Your task to perform on an android device: Go to privacy settings Image 0: 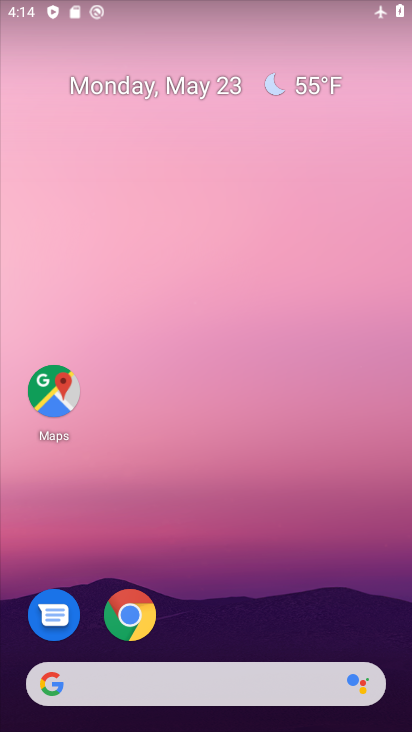
Step 0: drag from (380, 632) to (378, 253)
Your task to perform on an android device: Go to privacy settings Image 1: 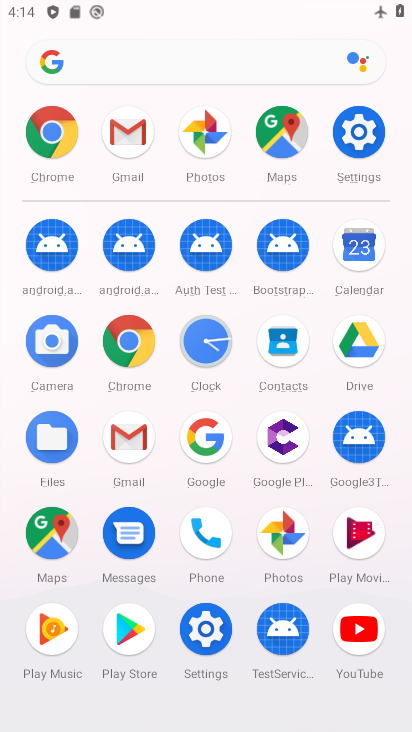
Step 1: click (211, 641)
Your task to perform on an android device: Go to privacy settings Image 2: 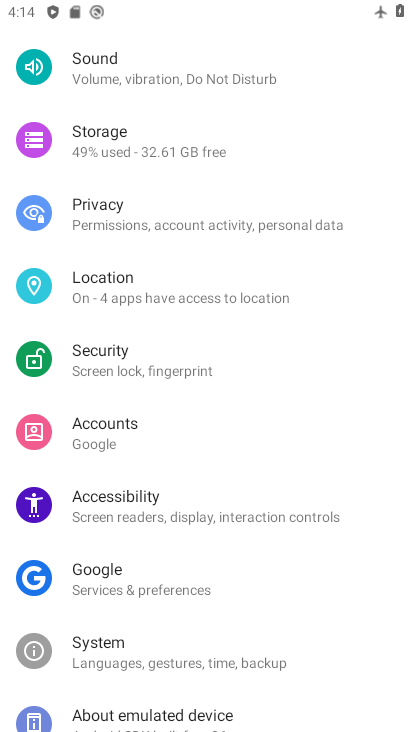
Step 2: drag from (332, 635) to (345, 469)
Your task to perform on an android device: Go to privacy settings Image 3: 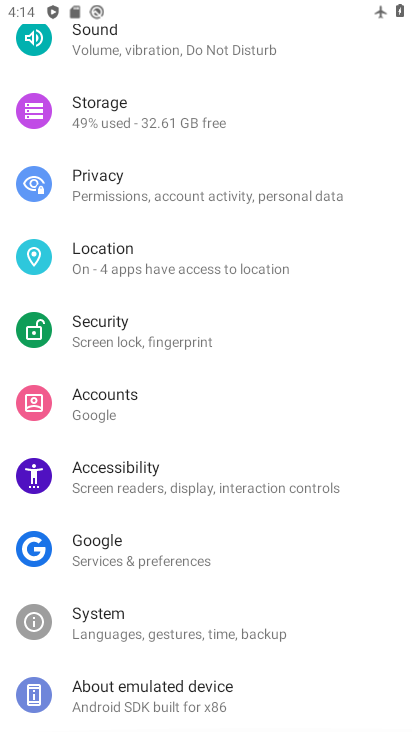
Step 3: drag from (361, 398) to (365, 518)
Your task to perform on an android device: Go to privacy settings Image 4: 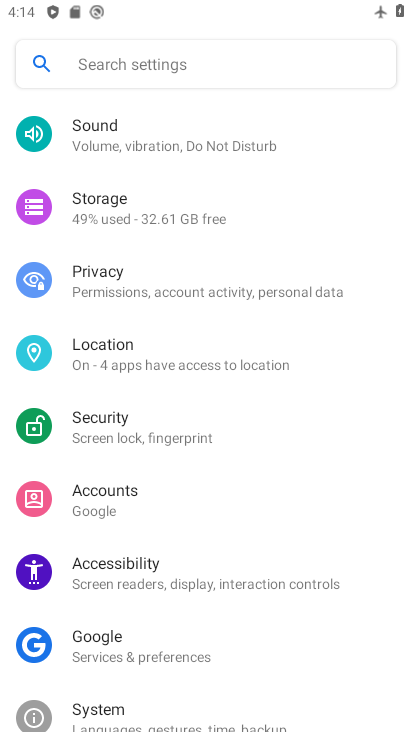
Step 4: drag from (361, 433) to (361, 529)
Your task to perform on an android device: Go to privacy settings Image 5: 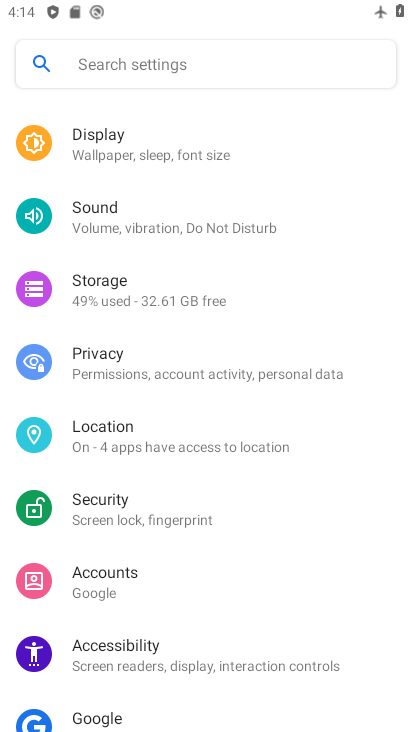
Step 5: drag from (360, 403) to (359, 519)
Your task to perform on an android device: Go to privacy settings Image 6: 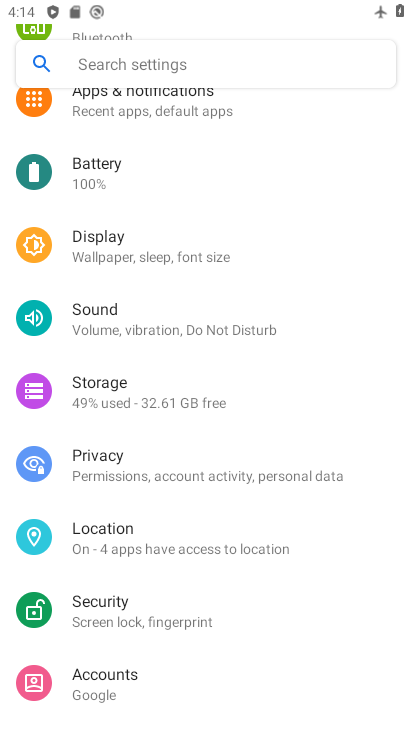
Step 6: drag from (350, 382) to (348, 507)
Your task to perform on an android device: Go to privacy settings Image 7: 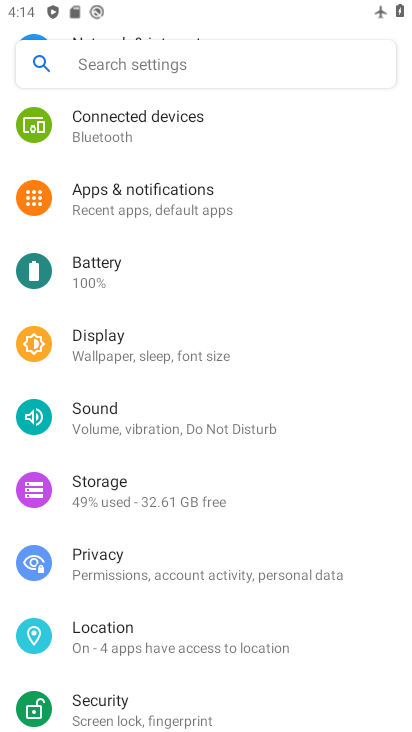
Step 7: drag from (347, 372) to (347, 481)
Your task to perform on an android device: Go to privacy settings Image 8: 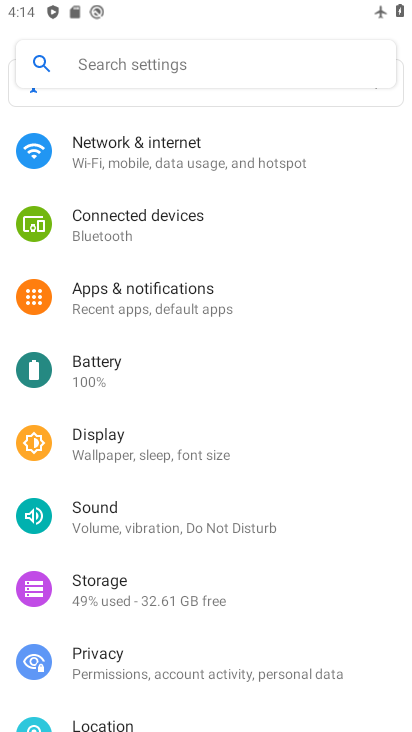
Step 8: drag from (346, 394) to (346, 480)
Your task to perform on an android device: Go to privacy settings Image 9: 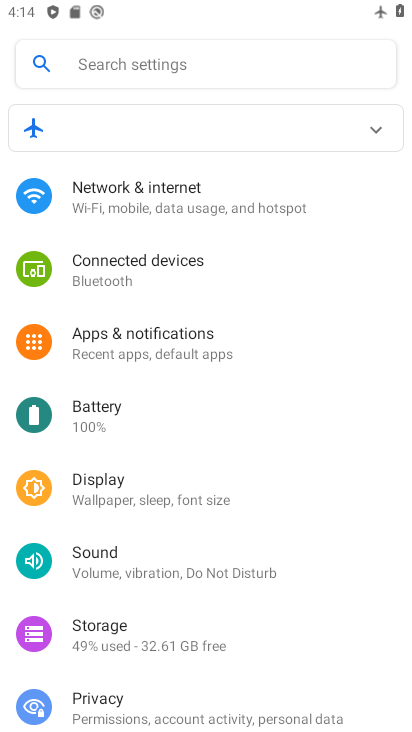
Step 9: drag from (344, 388) to (339, 523)
Your task to perform on an android device: Go to privacy settings Image 10: 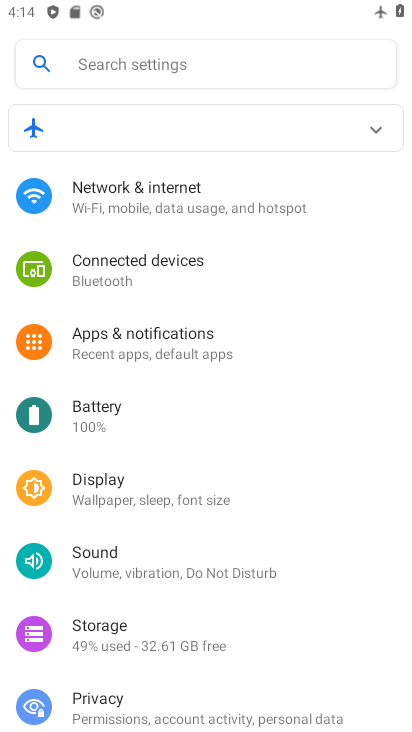
Step 10: drag from (346, 571) to (341, 463)
Your task to perform on an android device: Go to privacy settings Image 11: 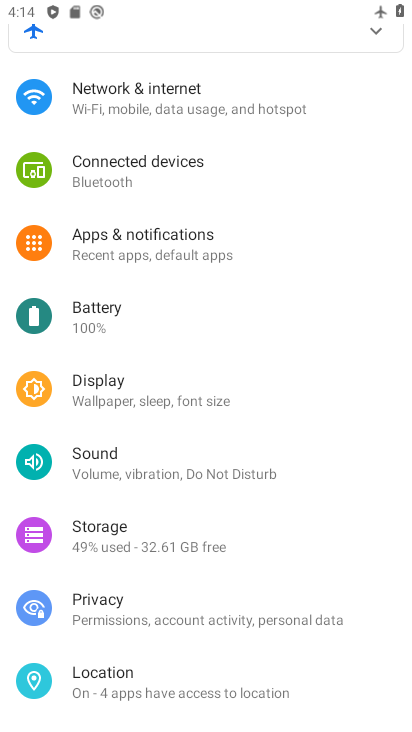
Step 11: drag from (363, 648) to (361, 509)
Your task to perform on an android device: Go to privacy settings Image 12: 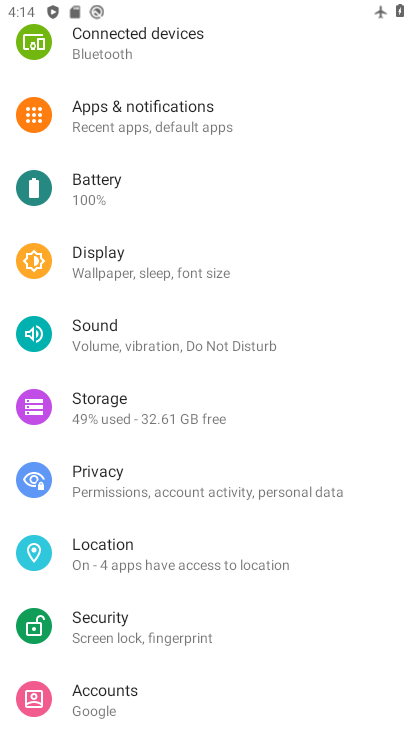
Step 12: drag from (374, 635) to (376, 494)
Your task to perform on an android device: Go to privacy settings Image 13: 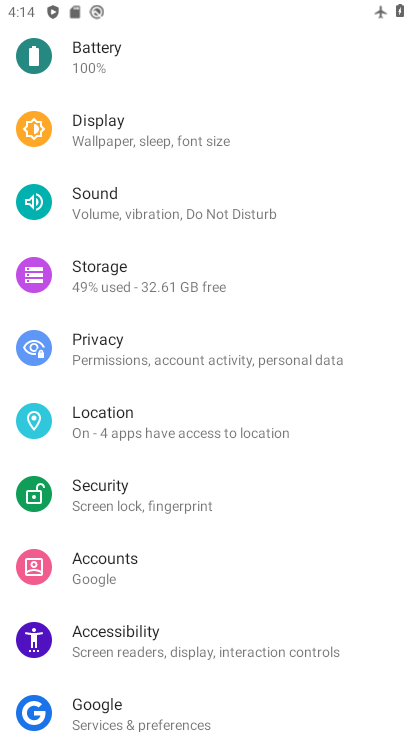
Step 13: click (286, 355)
Your task to perform on an android device: Go to privacy settings Image 14: 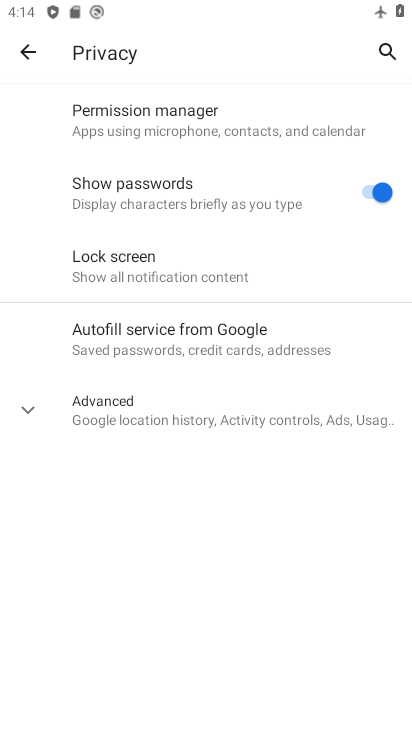
Step 14: task complete